Your task to perform on an android device: turn off smart reply in the gmail app Image 0: 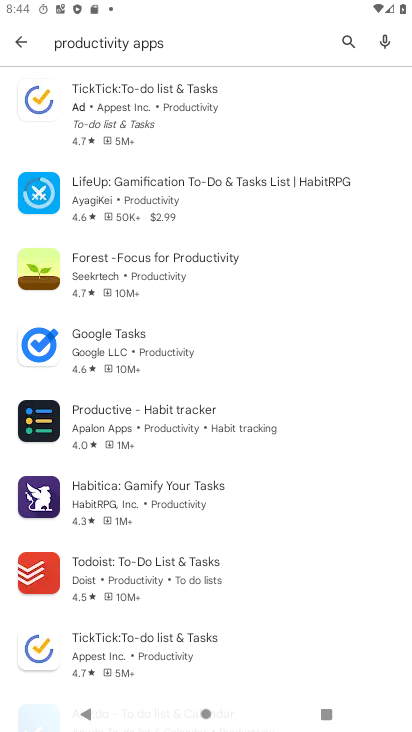
Step 0: press home button
Your task to perform on an android device: turn off smart reply in the gmail app Image 1: 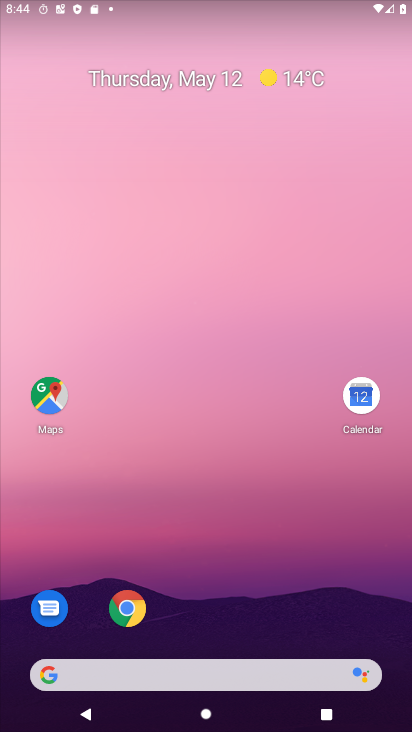
Step 1: drag from (302, 521) to (333, 260)
Your task to perform on an android device: turn off smart reply in the gmail app Image 2: 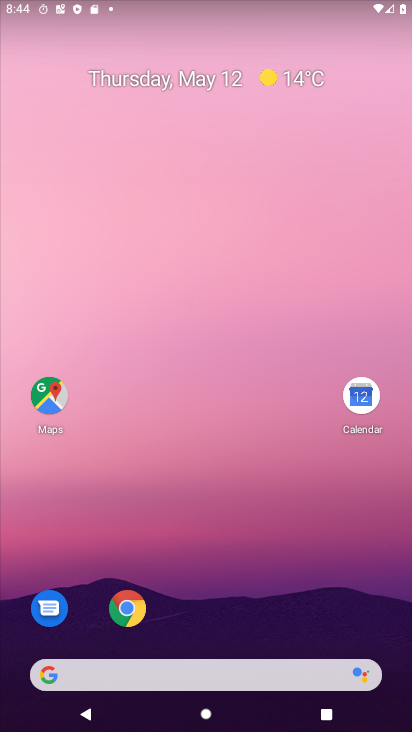
Step 2: drag from (283, 458) to (271, 35)
Your task to perform on an android device: turn off smart reply in the gmail app Image 3: 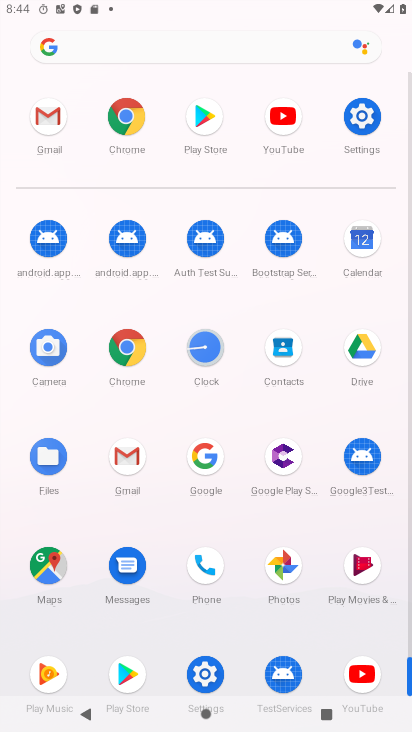
Step 3: click (45, 139)
Your task to perform on an android device: turn off smart reply in the gmail app Image 4: 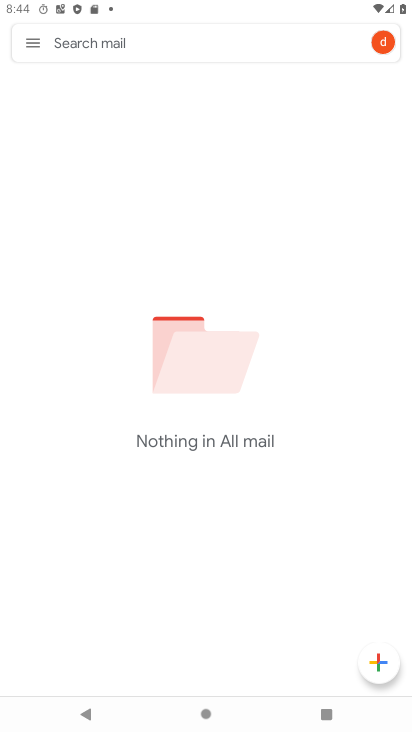
Step 4: click (33, 42)
Your task to perform on an android device: turn off smart reply in the gmail app Image 5: 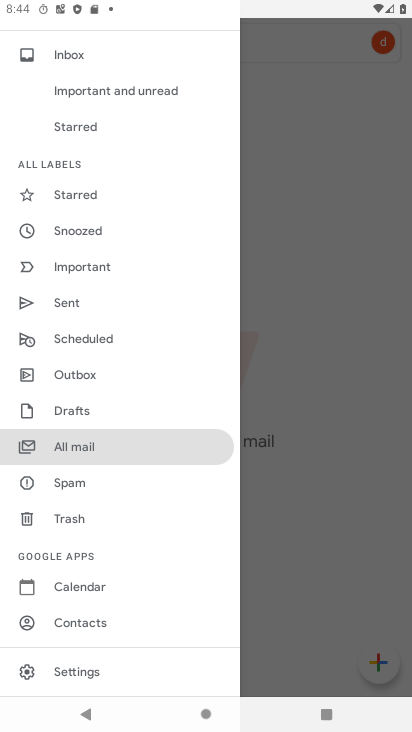
Step 5: click (109, 673)
Your task to perform on an android device: turn off smart reply in the gmail app Image 6: 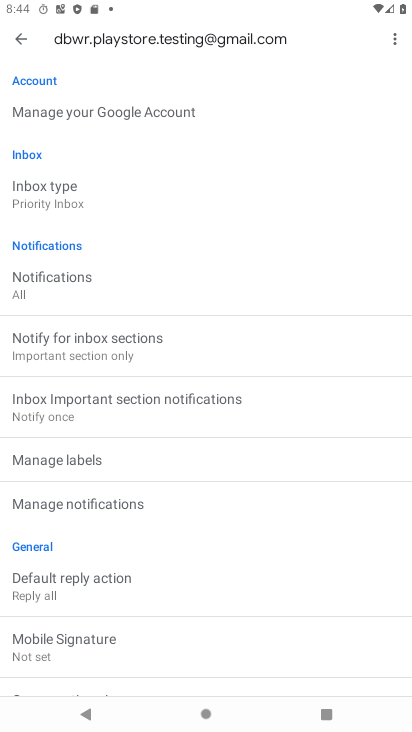
Step 6: drag from (224, 576) to (278, 104)
Your task to perform on an android device: turn off smart reply in the gmail app Image 7: 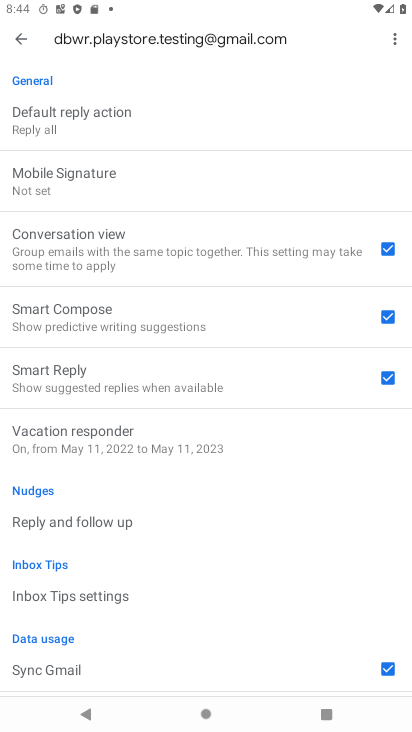
Step 7: drag from (180, 499) to (248, 118)
Your task to perform on an android device: turn off smart reply in the gmail app Image 8: 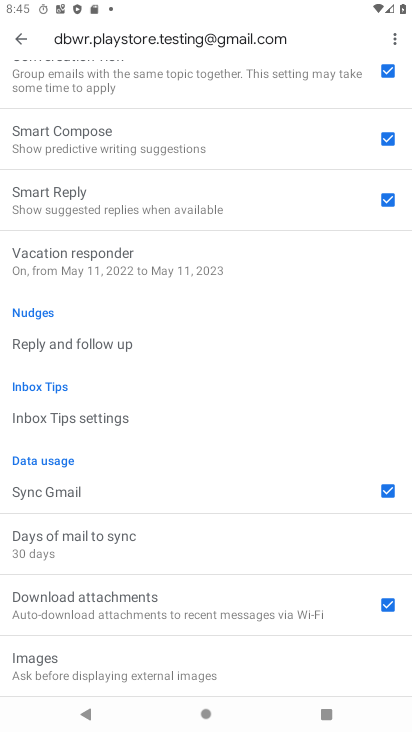
Step 8: click (390, 202)
Your task to perform on an android device: turn off smart reply in the gmail app Image 9: 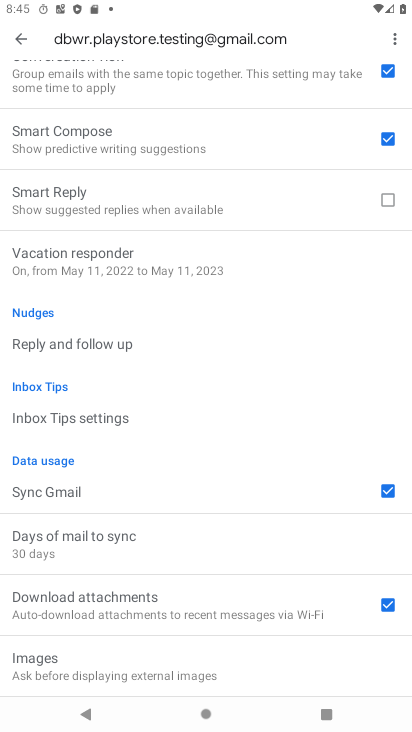
Step 9: task complete